Your task to perform on an android device: stop showing notifications on the lock screen Image 0: 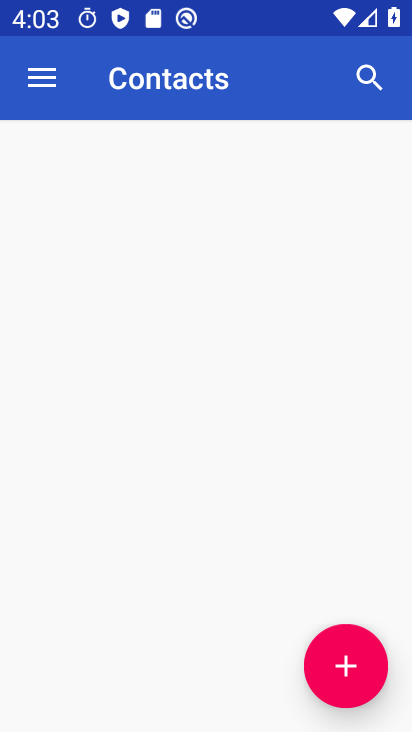
Step 0: drag from (330, 619) to (310, 349)
Your task to perform on an android device: stop showing notifications on the lock screen Image 1: 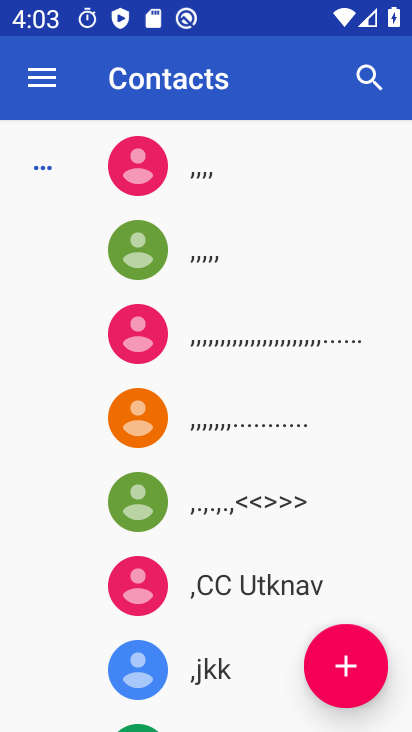
Step 1: press home button
Your task to perform on an android device: stop showing notifications on the lock screen Image 2: 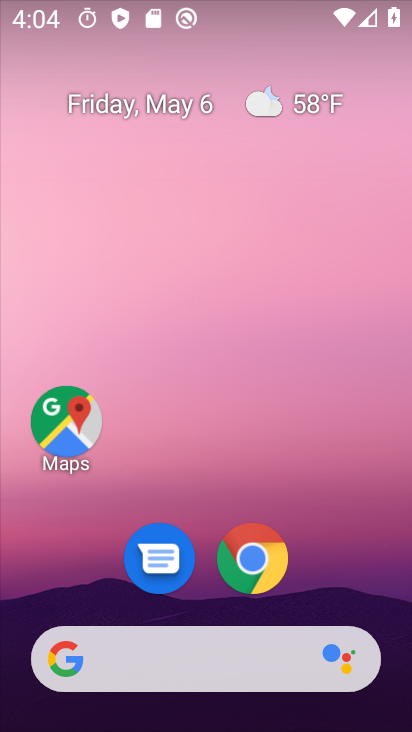
Step 2: drag from (336, 614) to (316, 76)
Your task to perform on an android device: stop showing notifications on the lock screen Image 3: 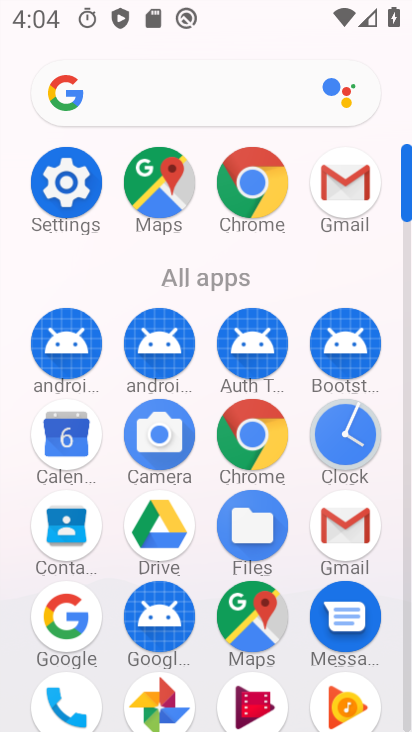
Step 3: click (62, 198)
Your task to perform on an android device: stop showing notifications on the lock screen Image 4: 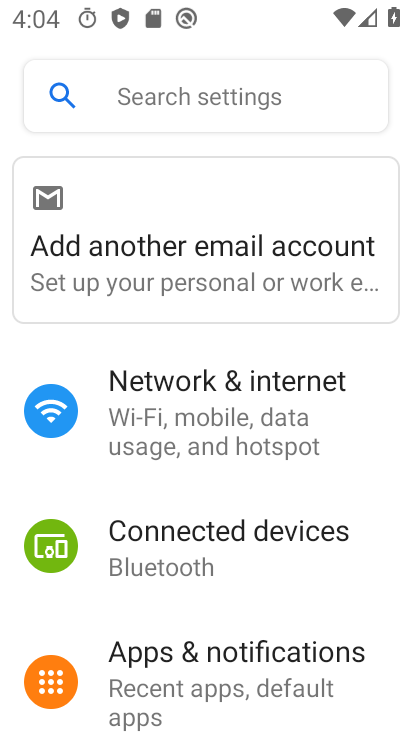
Step 4: click (261, 655)
Your task to perform on an android device: stop showing notifications on the lock screen Image 5: 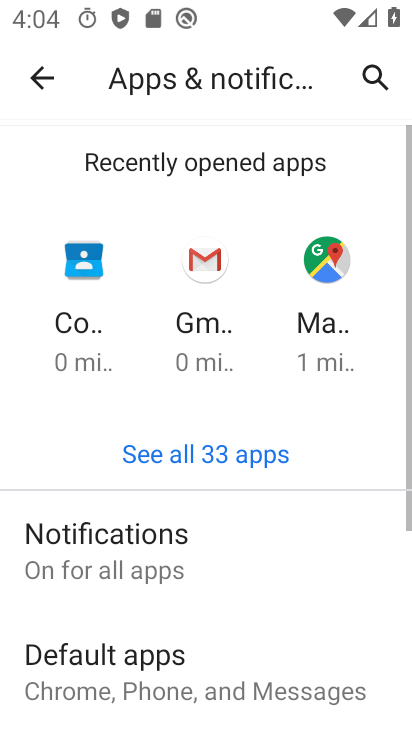
Step 5: drag from (251, 658) to (266, 213)
Your task to perform on an android device: stop showing notifications on the lock screen Image 6: 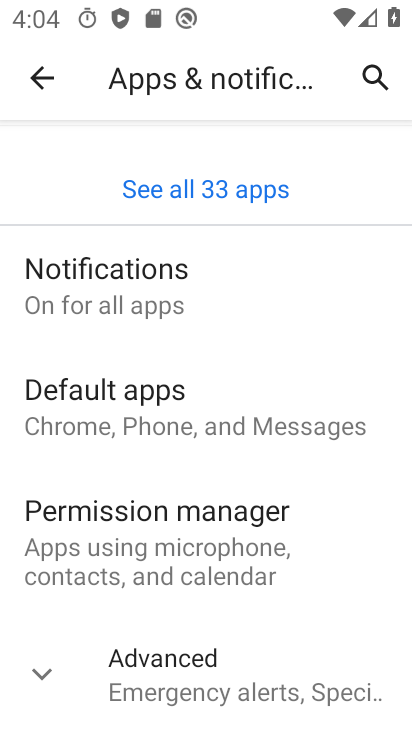
Step 6: click (155, 286)
Your task to perform on an android device: stop showing notifications on the lock screen Image 7: 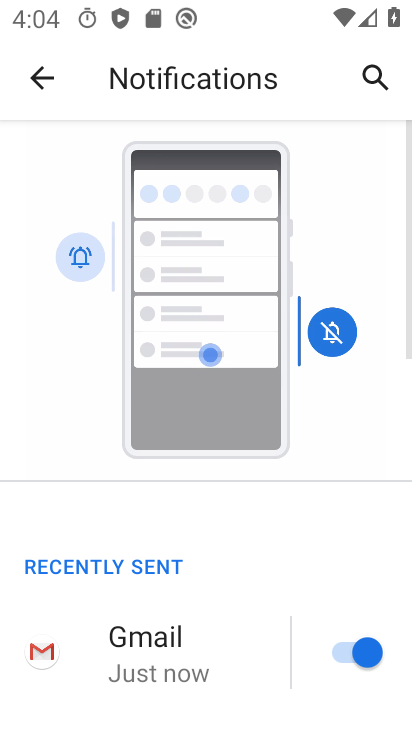
Step 7: drag from (222, 645) to (231, 90)
Your task to perform on an android device: stop showing notifications on the lock screen Image 8: 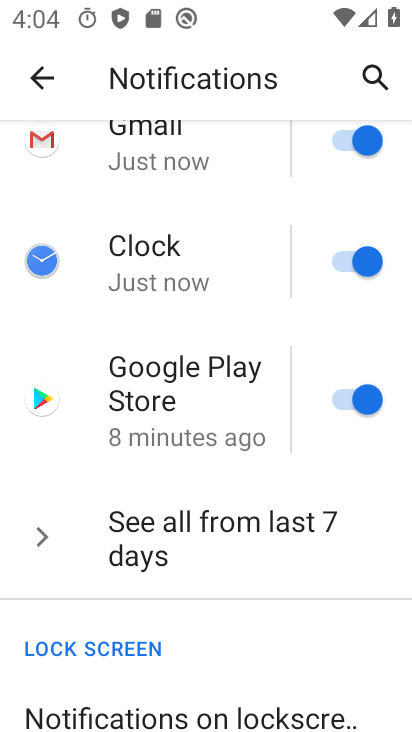
Step 8: drag from (248, 642) to (279, 223)
Your task to perform on an android device: stop showing notifications on the lock screen Image 9: 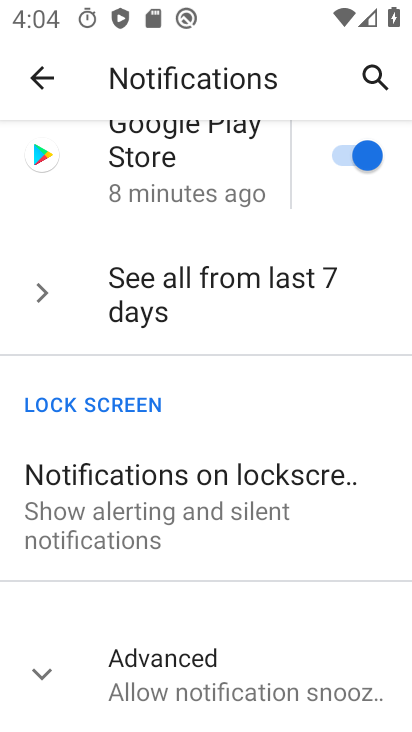
Step 9: click (262, 517)
Your task to perform on an android device: stop showing notifications on the lock screen Image 10: 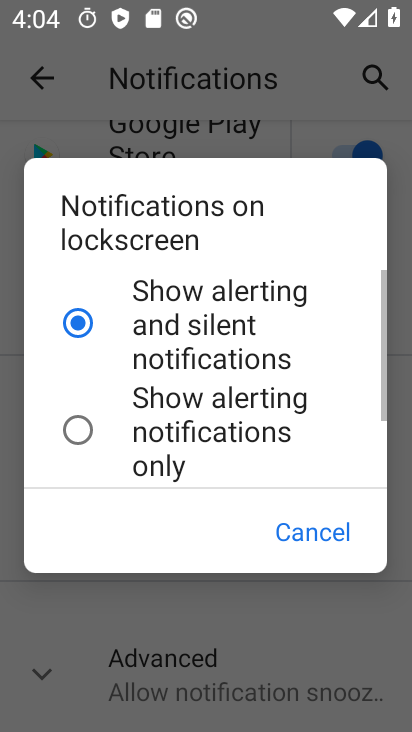
Step 10: click (203, 427)
Your task to perform on an android device: stop showing notifications on the lock screen Image 11: 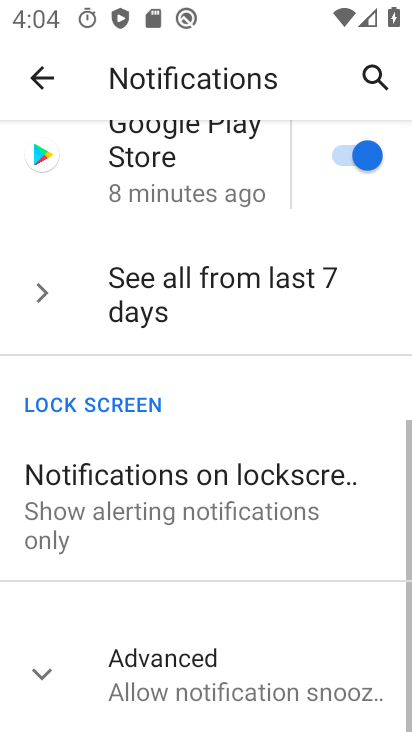
Step 11: click (212, 530)
Your task to perform on an android device: stop showing notifications on the lock screen Image 12: 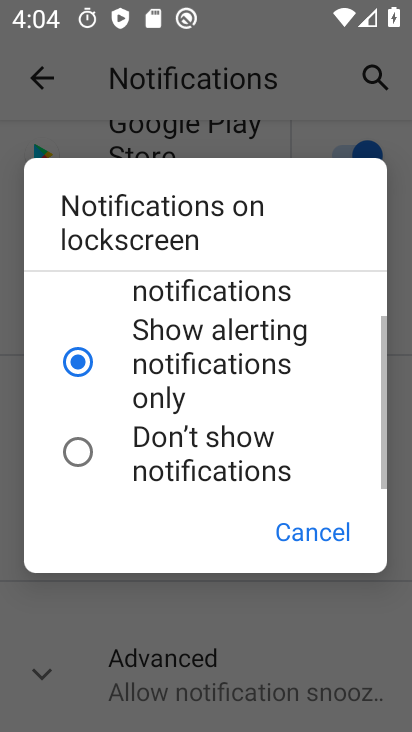
Step 12: drag from (210, 454) to (206, 295)
Your task to perform on an android device: stop showing notifications on the lock screen Image 13: 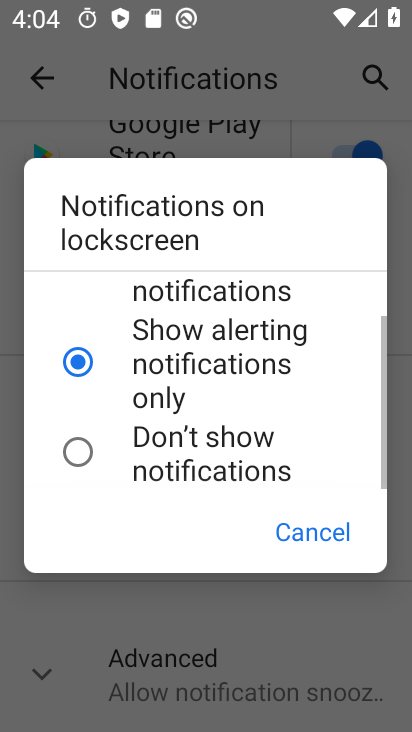
Step 13: click (190, 459)
Your task to perform on an android device: stop showing notifications on the lock screen Image 14: 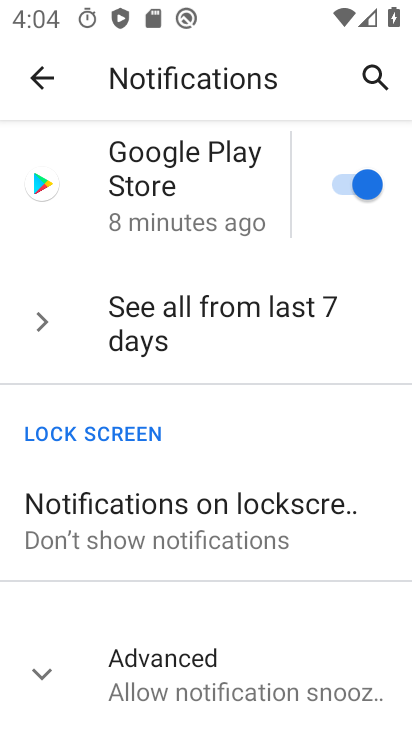
Step 14: task complete